Your task to perform on an android device: Play the last video I watched on Youtube Image 0: 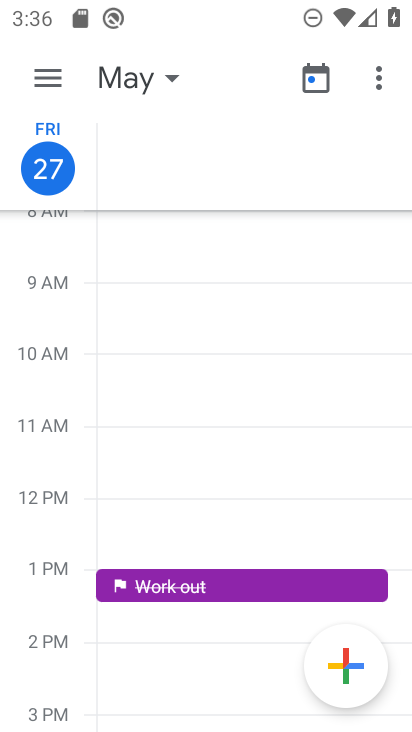
Step 0: press home button
Your task to perform on an android device: Play the last video I watched on Youtube Image 1: 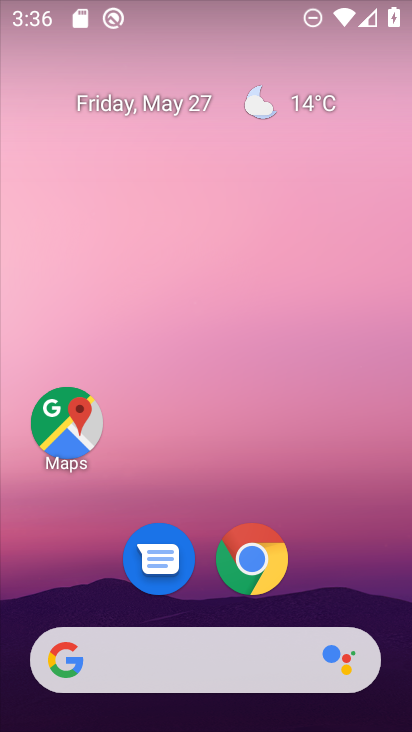
Step 1: drag from (363, 599) to (204, 53)
Your task to perform on an android device: Play the last video I watched on Youtube Image 2: 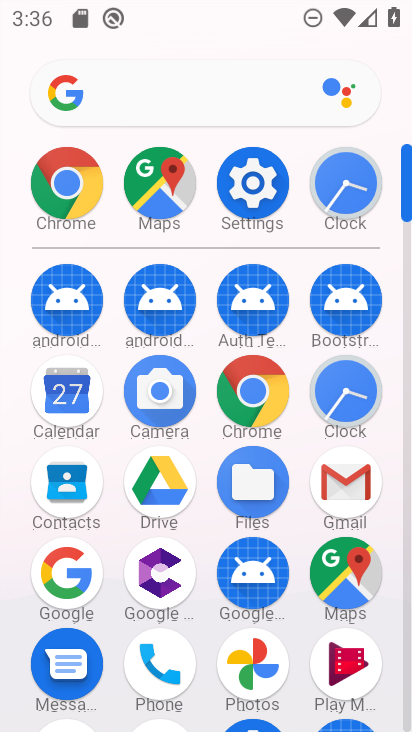
Step 2: drag from (298, 603) to (262, 303)
Your task to perform on an android device: Play the last video I watched on Youtube Image 3: 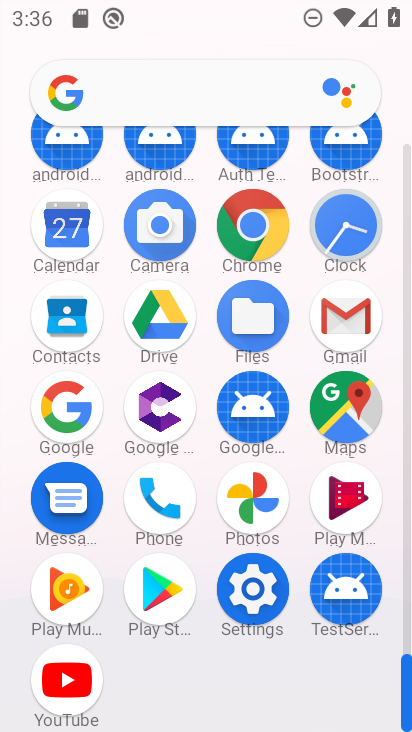
Step 3: click (58, 677)
Your task to perform on an android device: Play the last video I watched on Youtube Image 4: 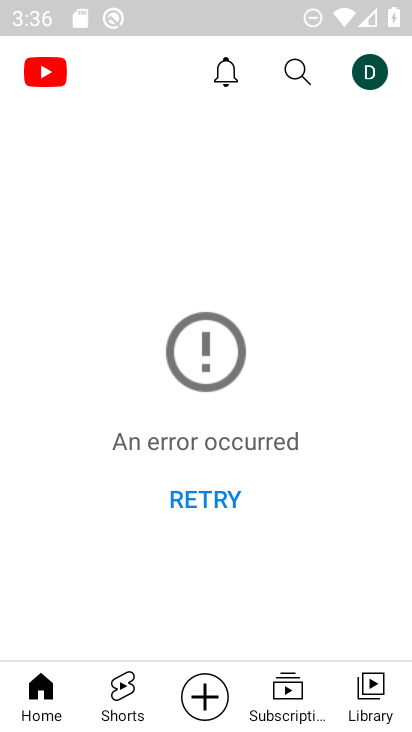
Step 4: click (376, 702)
Your task to perform on an android device: Play the last video I watched on Youtube Image 5: 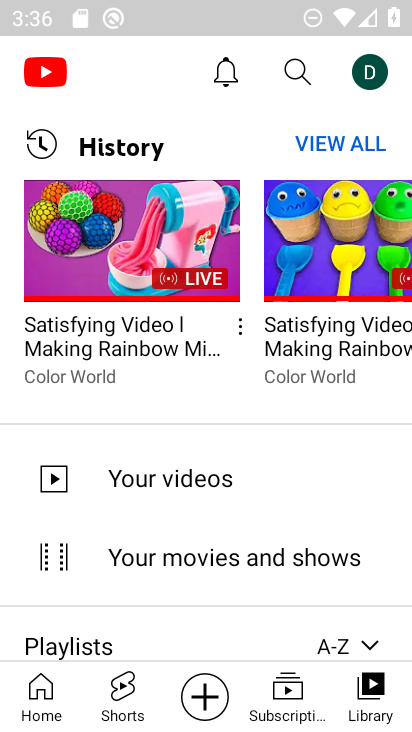
Step 5: click (115, 250)
Your task to perform on an android device: Play the last video I watched on Youtube Image 6: 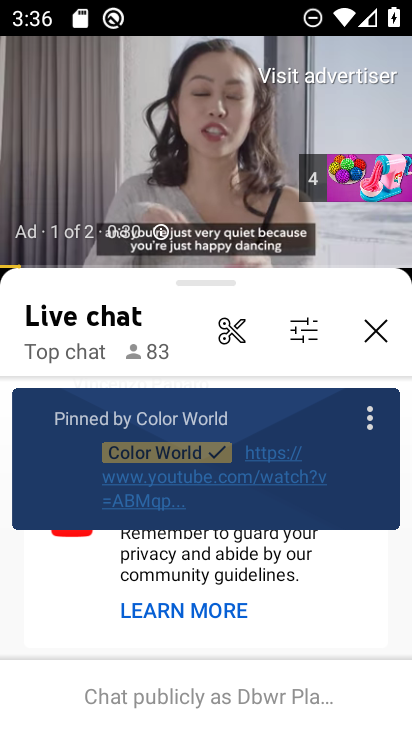
Step 6: click (377, 311)
Your task to perform on an android device: Play the last video I watched on Youtube Image 7: 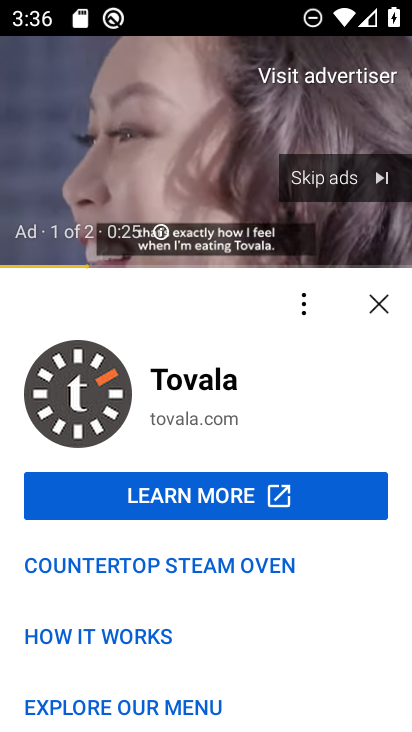
Step 7: click (344, 186)
Your task to perform on an android device: Play the last video I watched on Youtube Image 8: 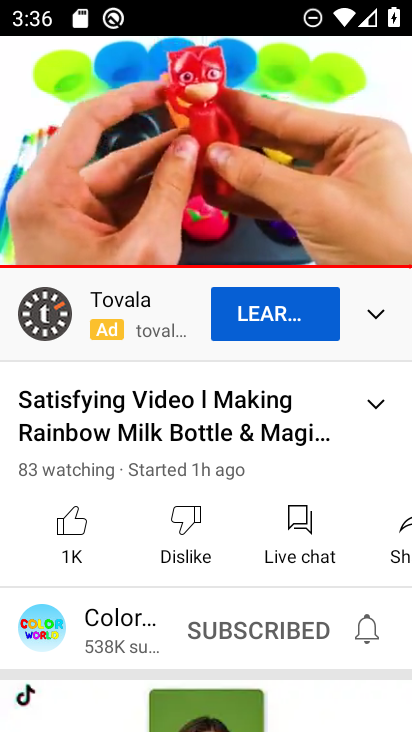
Step 8: task complete